Your task to perform on an android device: Show the shopping cart on walmart.com. Search for dell xps on walmart.com, select the first entry, add it to the cart, then select checkout. Image 0: 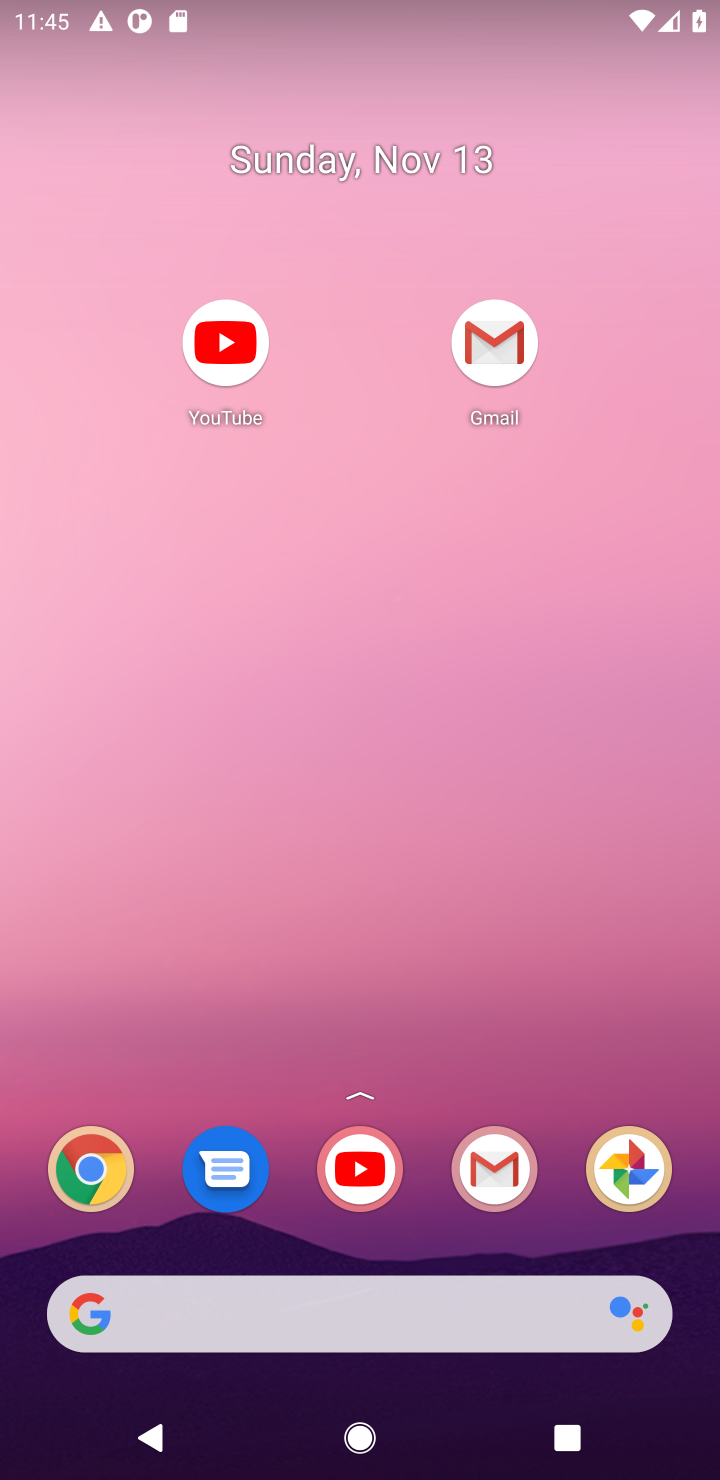
Step 0: drag from (431, 1261) to (350, 83)
Your task to perform on an android device: Show the shopping cart on walmart.com. Search for dell xps on walmart.com, select the first entry, add it to the cart, then select checkout. Image 1: 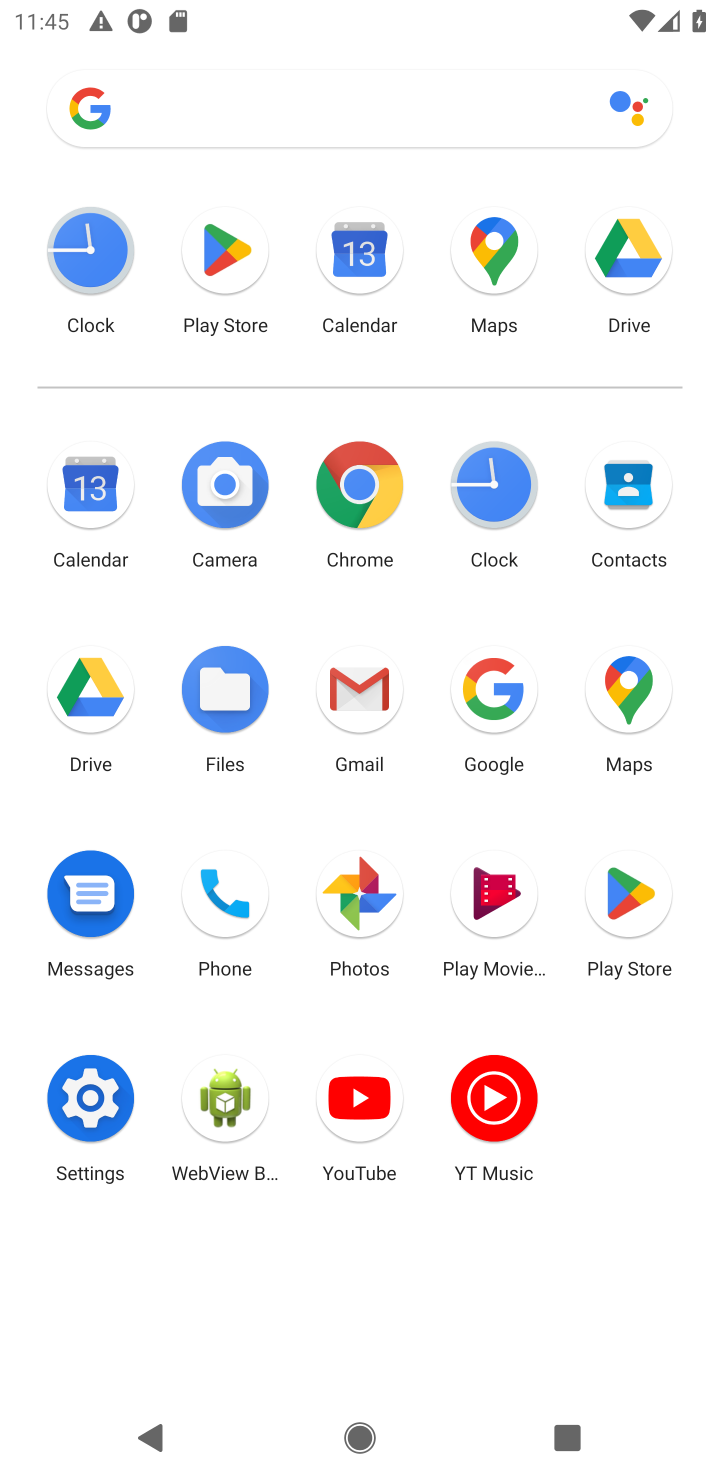
Step 1: click (352, 490)
Your task to perform on an android device: Show the shopping cart on walmart.com. Search for dell xps on walmart.com, select the first entry, add it to the cart, then select checkout. Image 2: 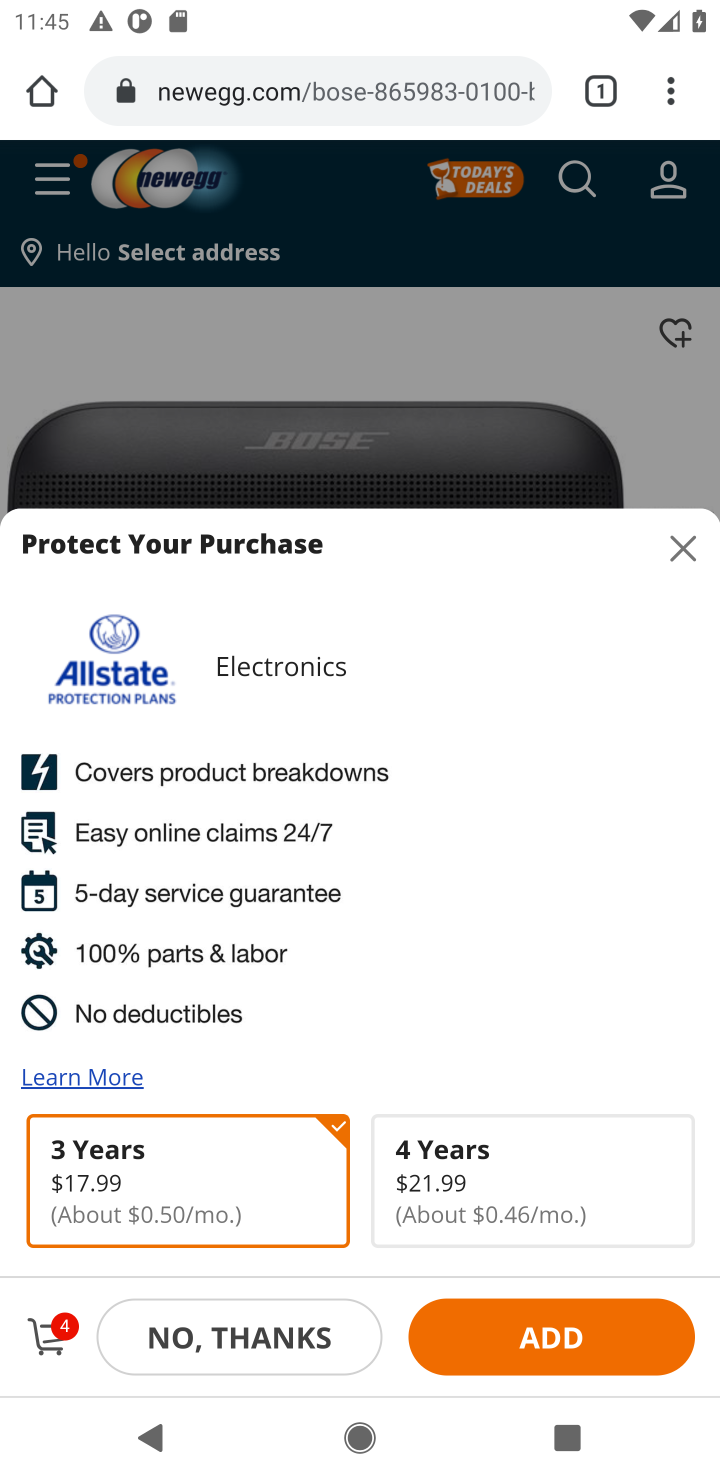
Step 2: click (329, 88)
Your task to perform on an android device: Show the shopping cart on walmart.com. Search for dell xps on walmart.com, select the first entry, add it to the cart, then select checkout. Image 3: 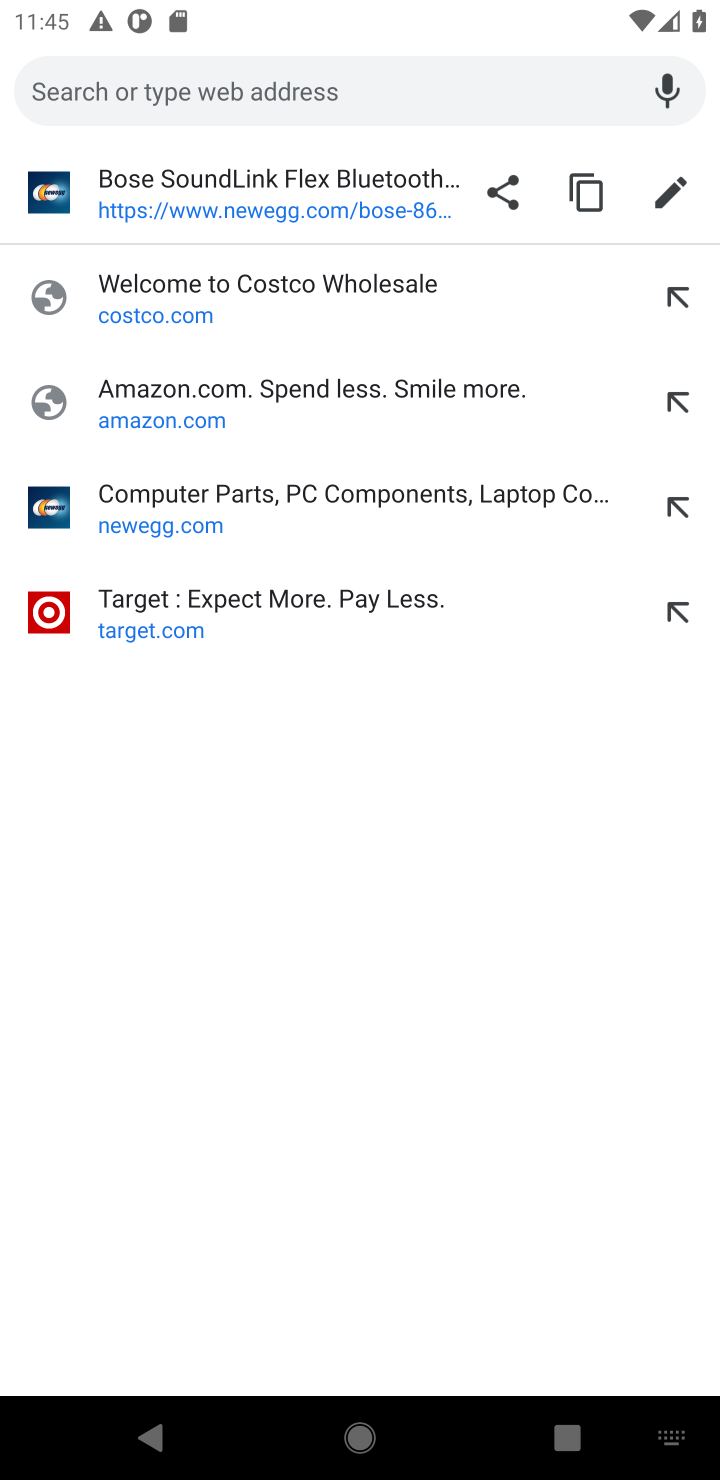
Step 3: type "walmart.com"
Your task to perform on an android device: Show the shopping cart on walmart.com. Search for dell xps on walmart.com, select the first entry, add it to the cart, then select checkout. Image 4: 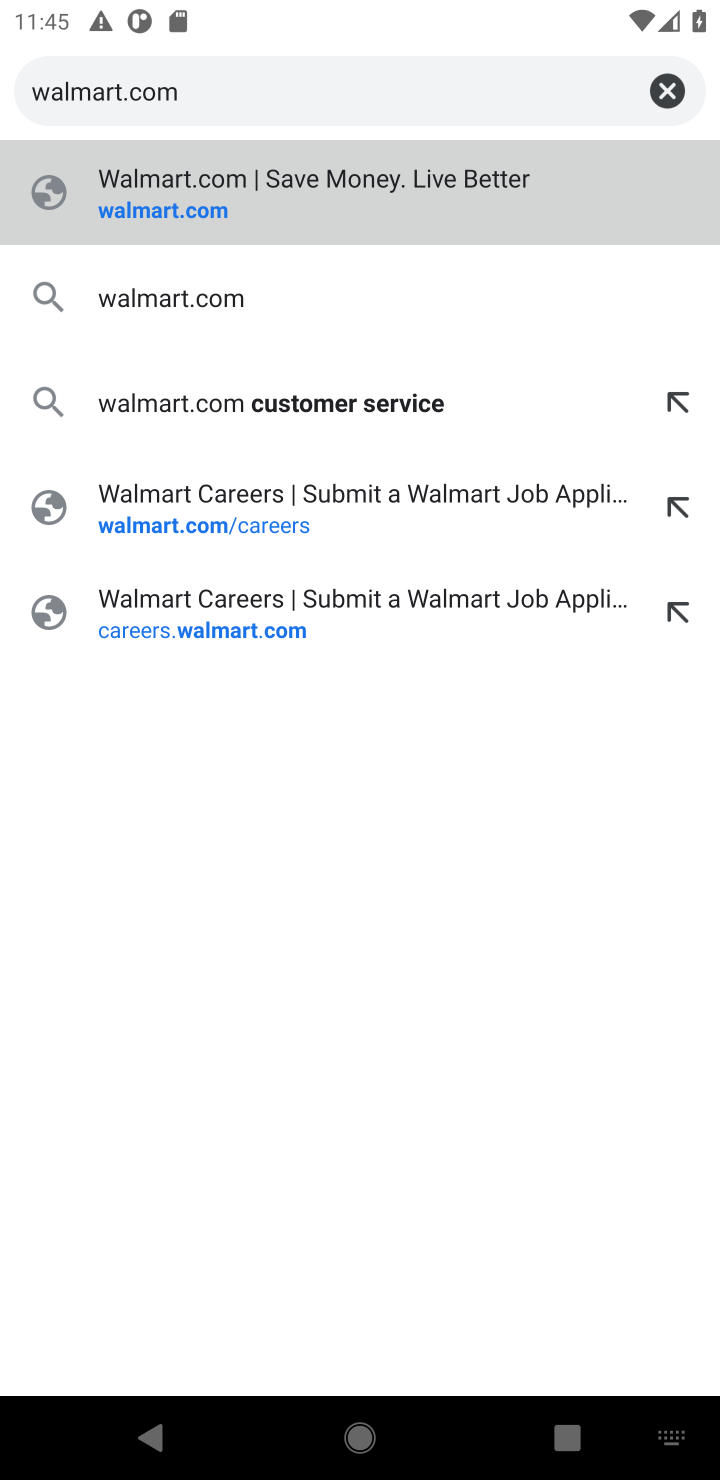
Step 4: press enter
Your task to perform on an android device: Show the shopping cart on walmart.com. Search for dell xps on walmart.com, select the first entry, add it to the cart, then select checkout. Image 5: 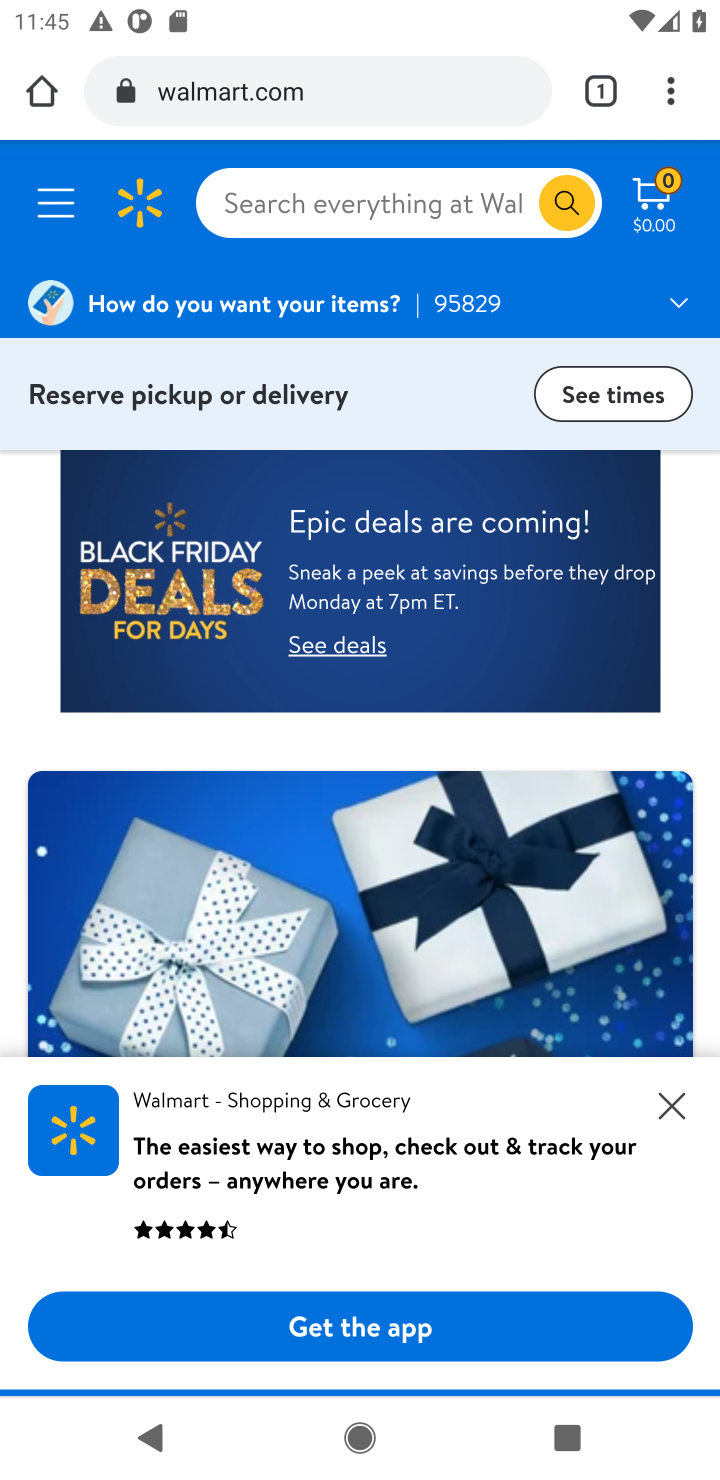
Step 5: click (648, 200)
Your task to perform on an android device: Show the shopping cart on walmart.com. Search for dell xps on walmart.com, select the first entry, add it to the cart, then select checkout. Image 6: 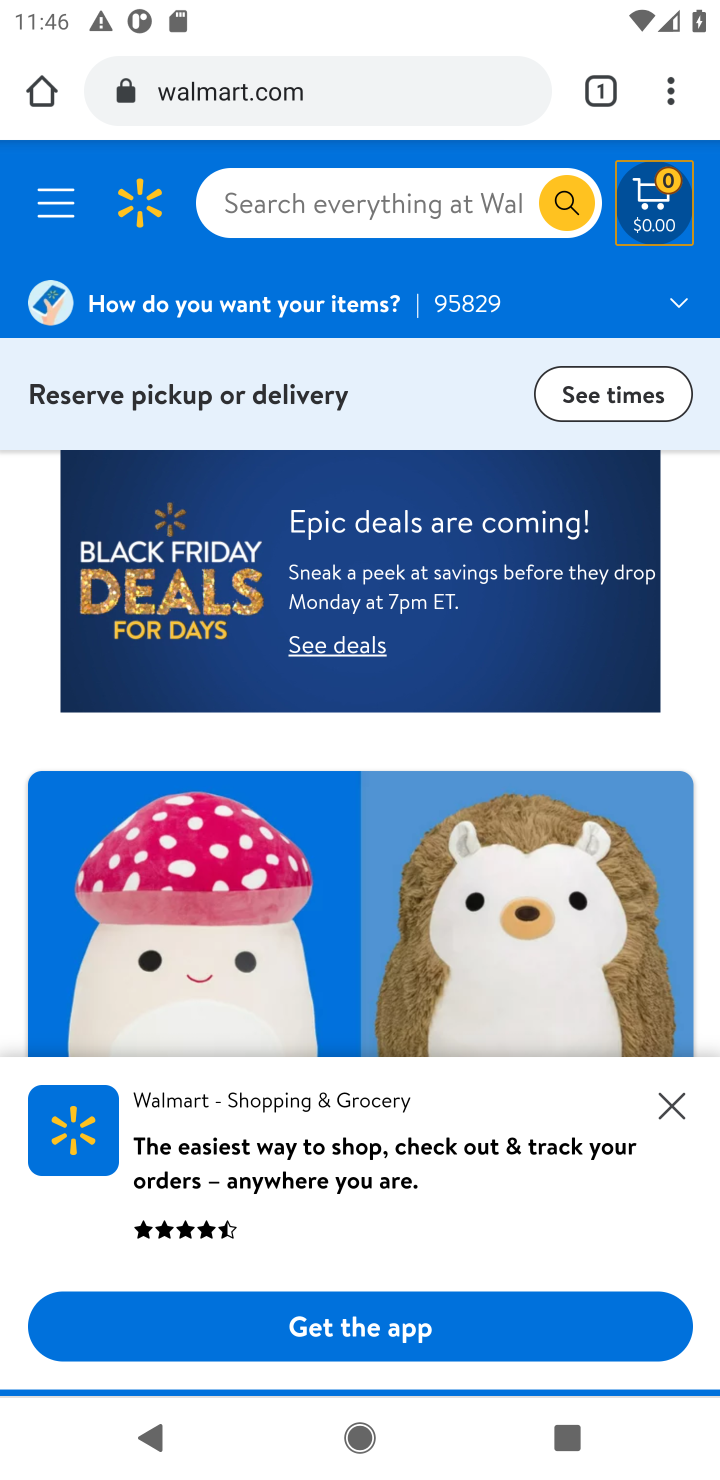
Step 6: click (659, 213)
Your task to perform on an android device: Show the shopping cart on walmart.com. Search for dell xps on walmart.com, select the first entry, add it to the cart, then select checkout. Image 7: 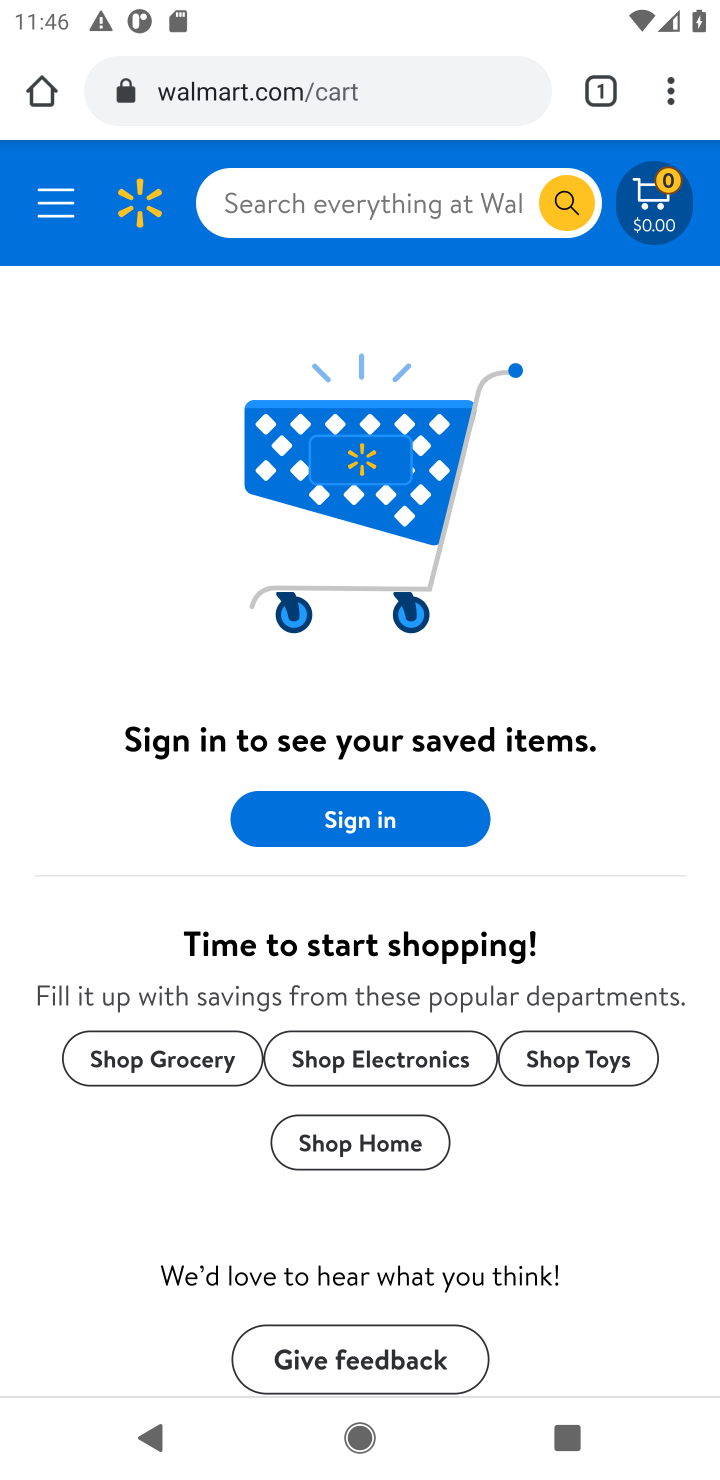
Step 7: click (310, 213)
Your task to perform on an android device: Show the shopping cart on walmart.com. Search for dell xps on walmart.com, select the first entry, add it to the cart, then select checkout. Image 8: 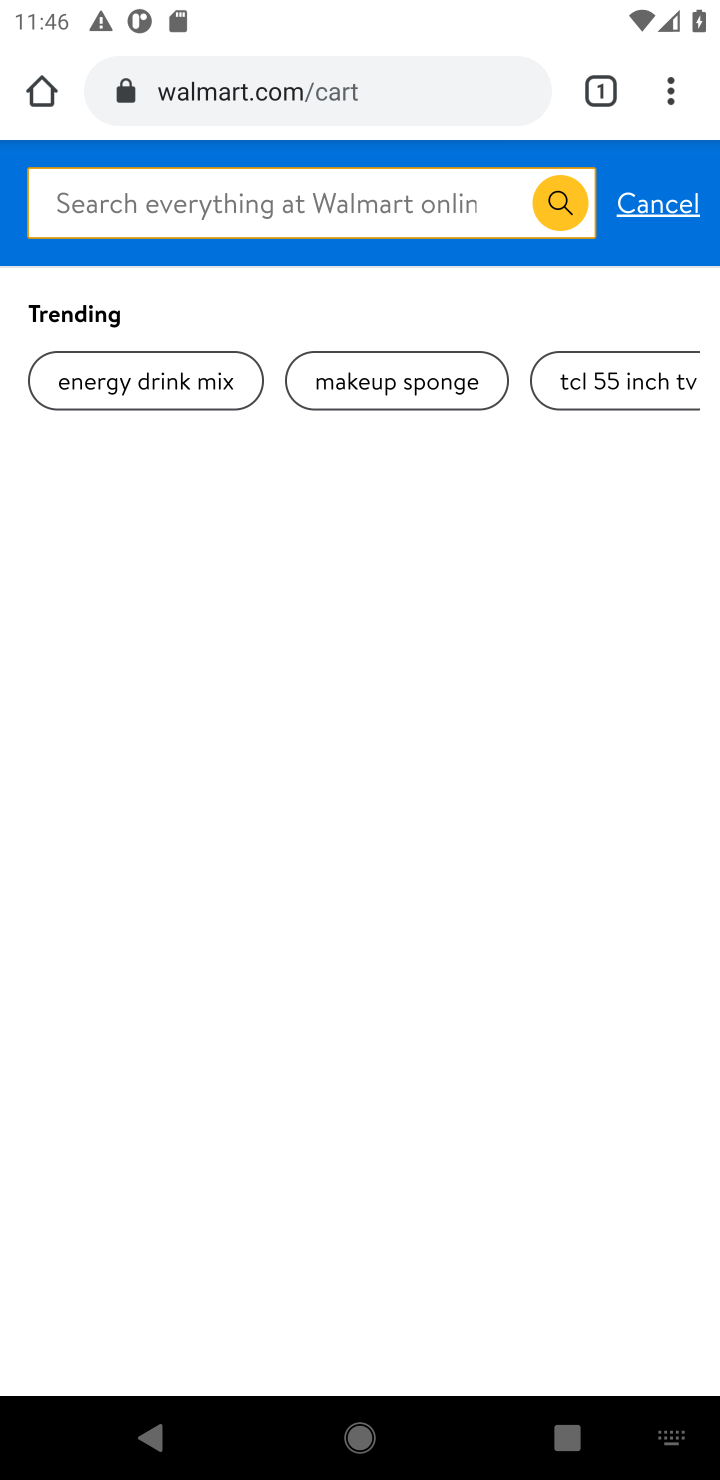
Step 8: type "dell xps"
Your task to perform on an android device: Show the shopping cart on walmart.com. Search for dell xps on walmart.com, select the first entry, add it to the cart, then select checkout. Image 9: 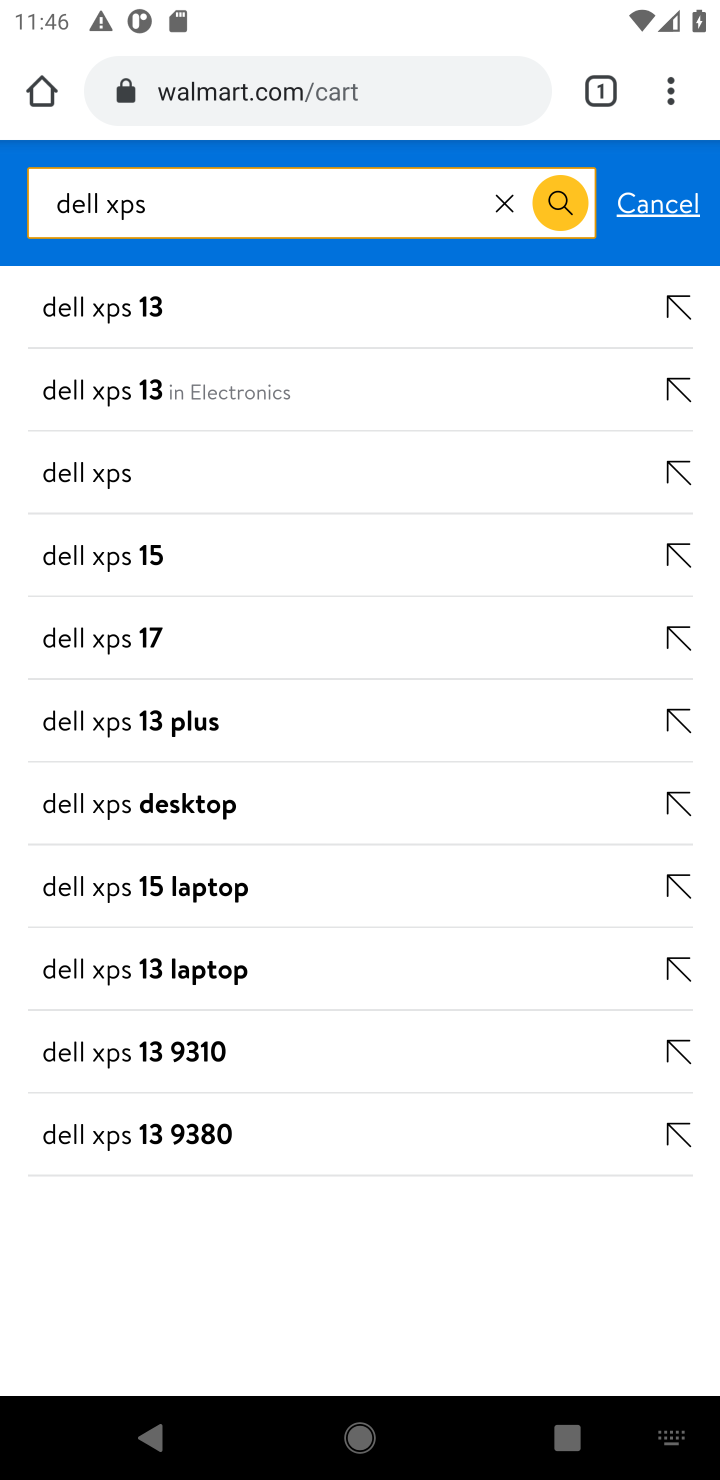
Step 9: press enter
Your task to perform on an android device: Show the shopping cart on walmart.com. Search for dell xps on walmart.com, select the first entry, add it to the cart, then select checkout. Image 10: 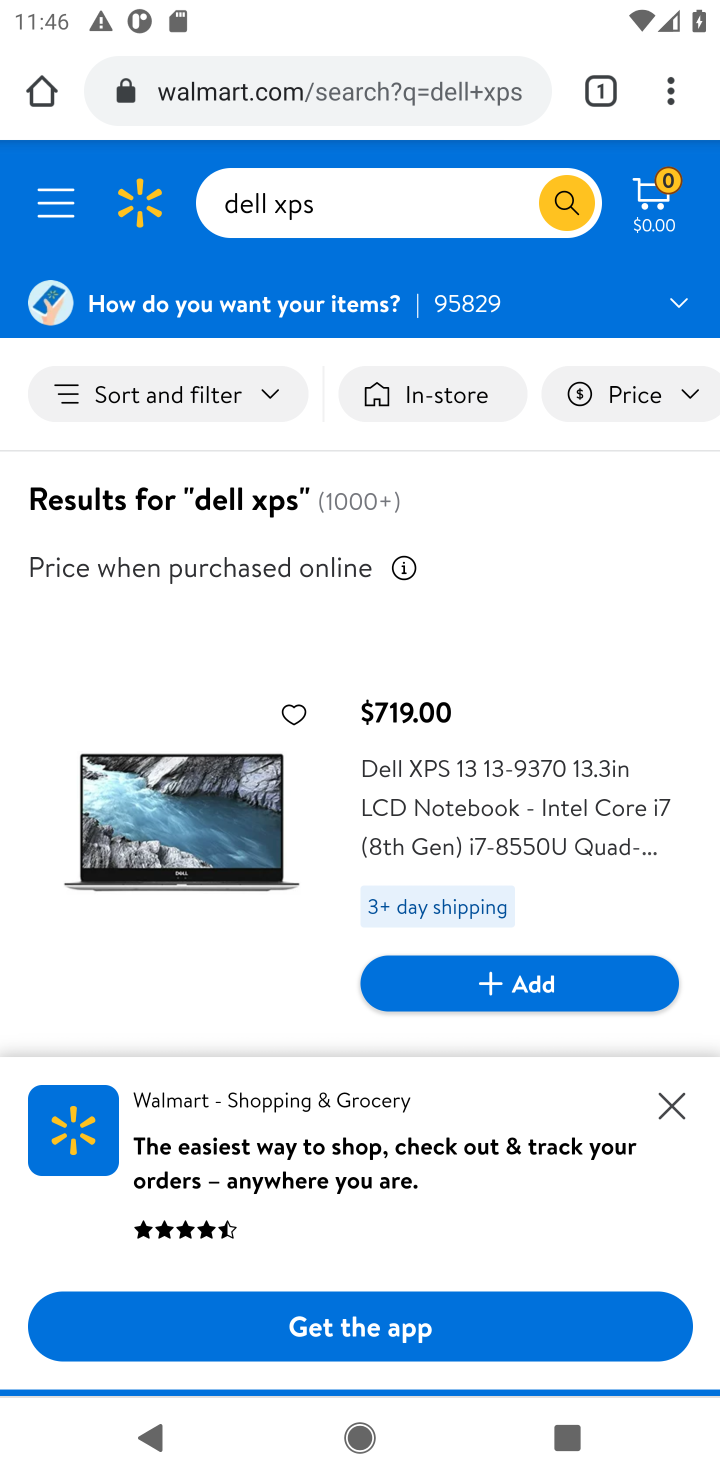
Step 10: drag from (449, 950) to (417, 519)
Your task to perform on an android device: Show the shopping cart on walmart.com. Search for dell xps on walmart.com, select the first entry, add it to the cart, then select checkout. Image 11: 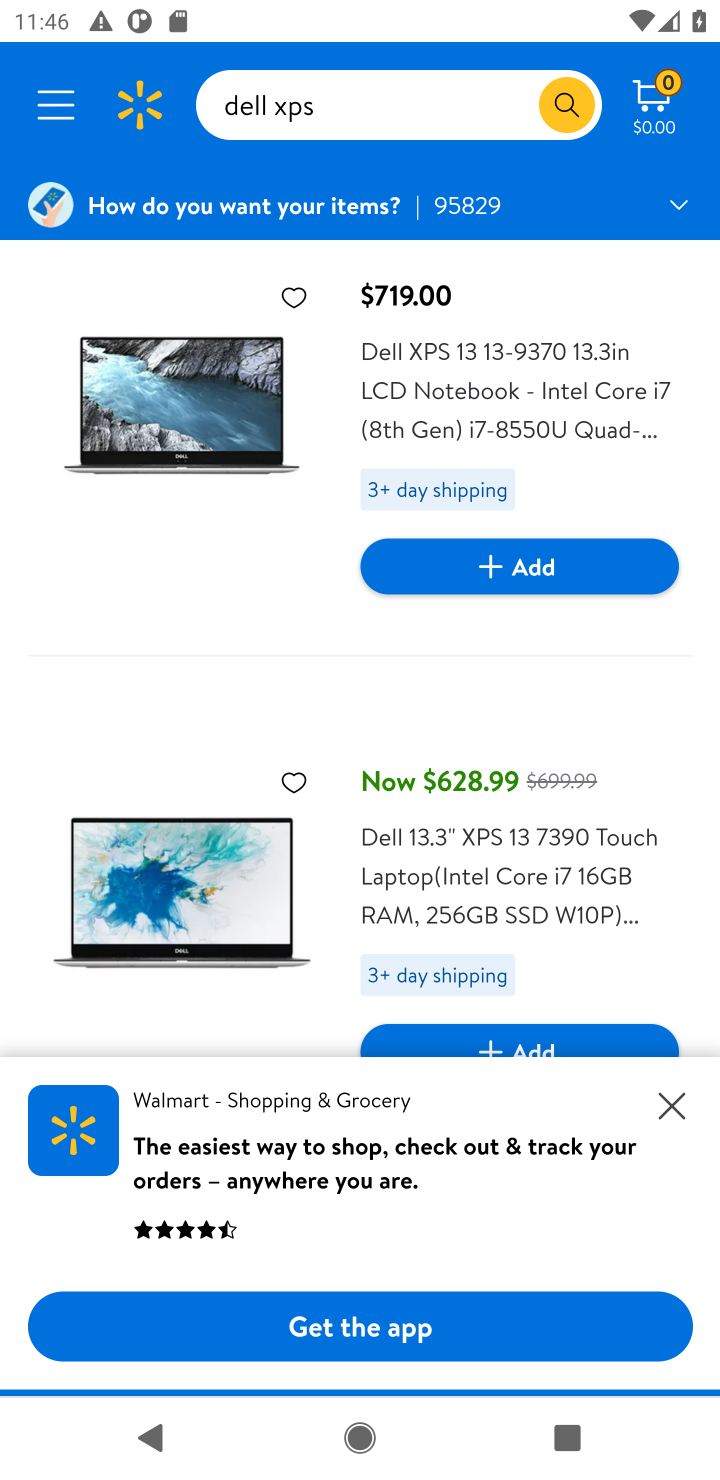
Step 11: click (525, 557)
Your task to perform on an android device: Show the shopping cart on walmart.com. Search for dell xps on walmart.com, select the first entry, add it to the cart, then select checkout. Image 12: 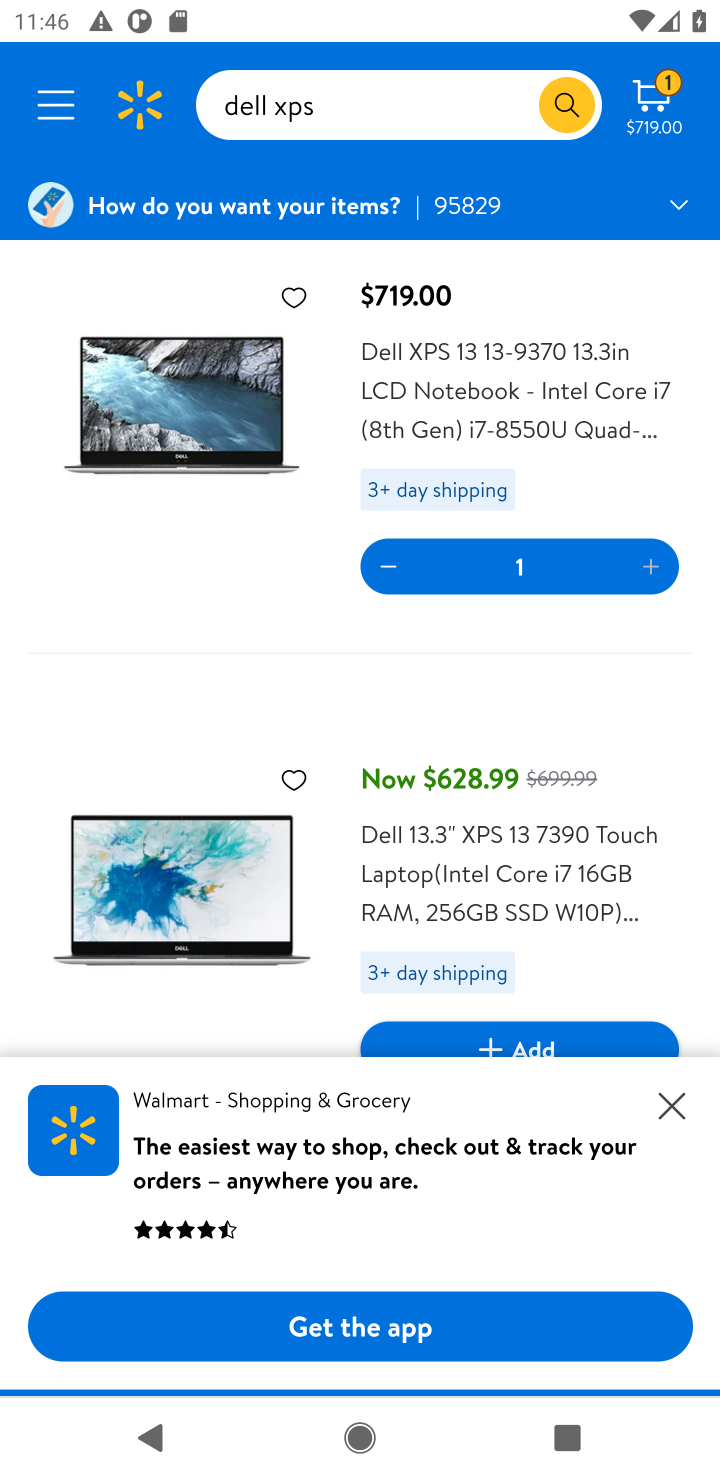
Step 12: click (654, 96)
Your task to perform on an android device: Show the shopping cart on walmart.com. Search for dell xps on walmart.com, select the first entry, add it to the cart, then select checkout. Image 13: 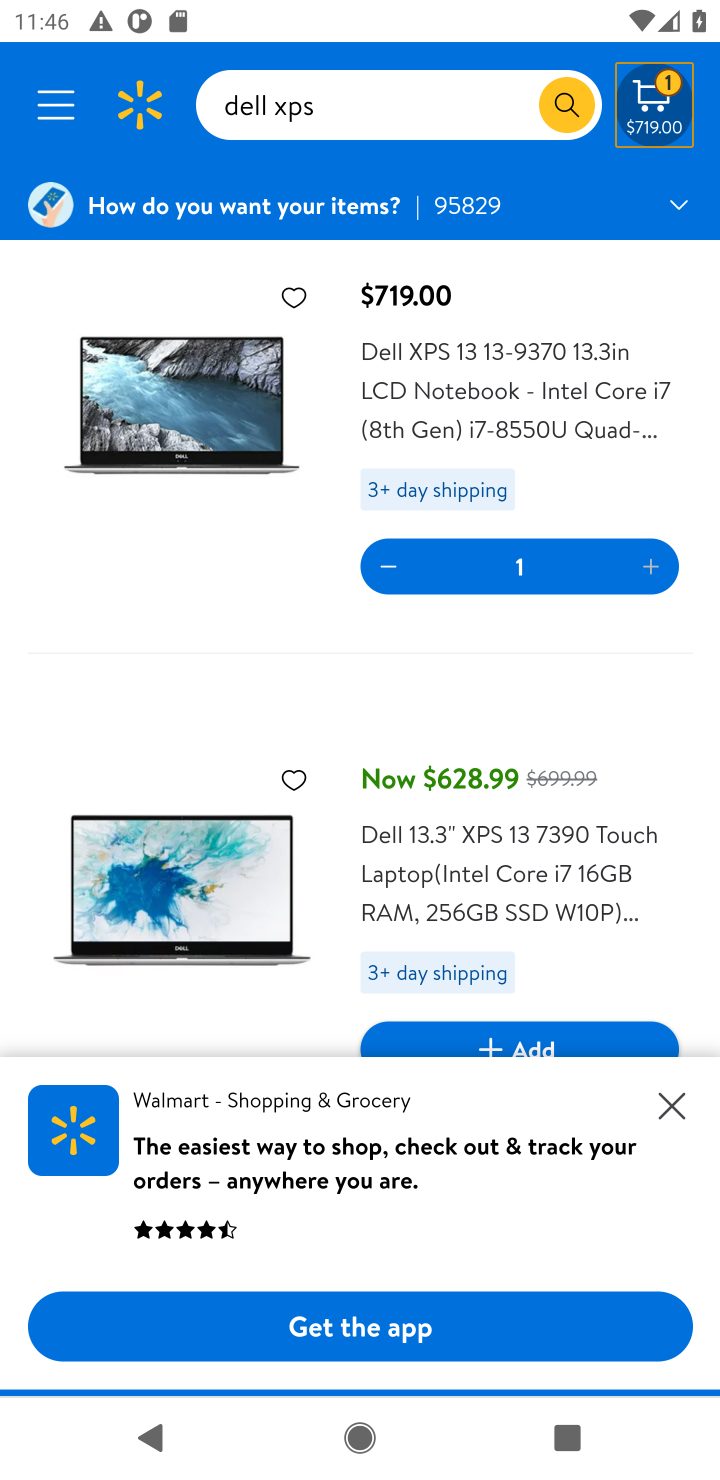
Step 13: click (655, 112)
Your task to perform on an android device: Show the shopping cart on walmart.com. Search for dell xps on walmart.com, select the first entry, add it to the cart, then select checkout. Image 14: 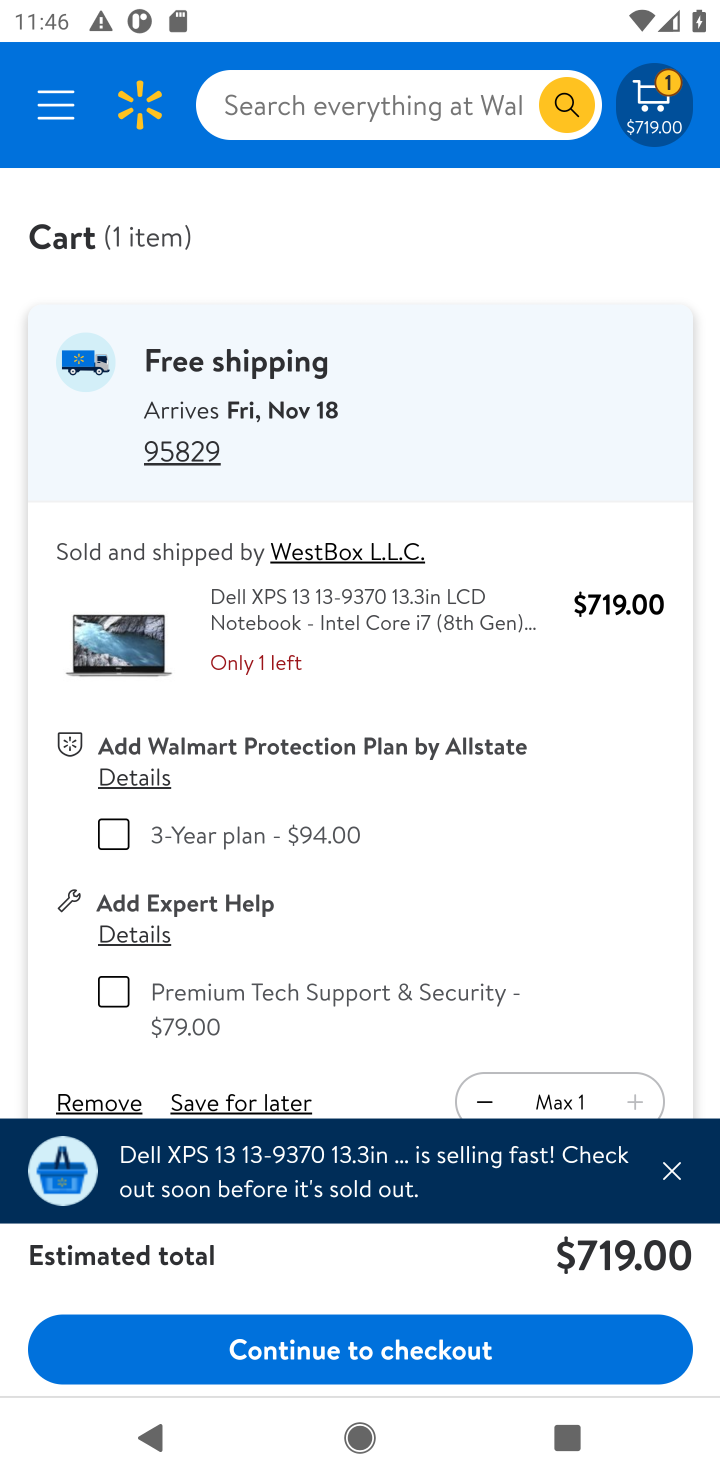
Step 14: click (394, 1344)
Your task to perform on an android device: Show the shopping cart on walmart.com. Search for dell xps on walmart.com, select the first entry, add it to the cart, then select checkout. Image 15: 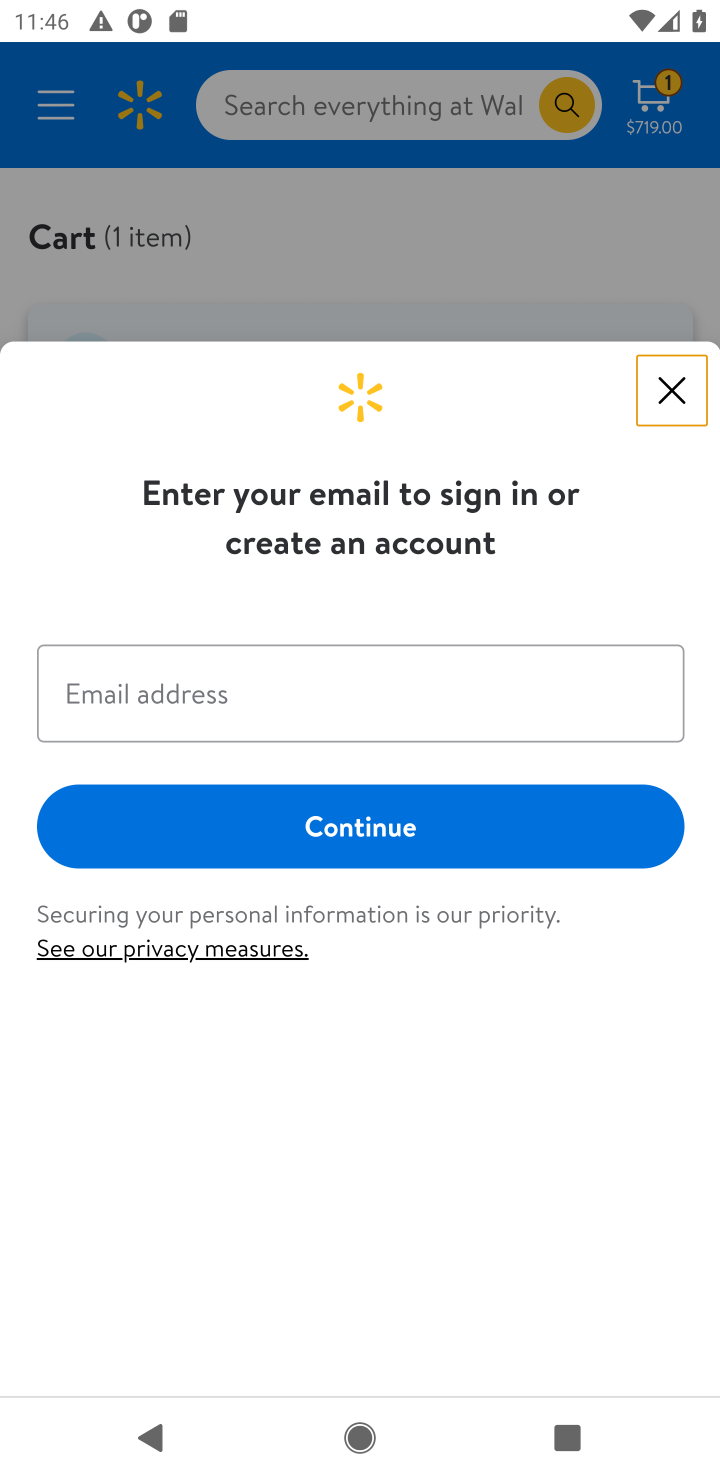
Step 15: task complete